Your task to perform on an android device: Check the weather Image 0: 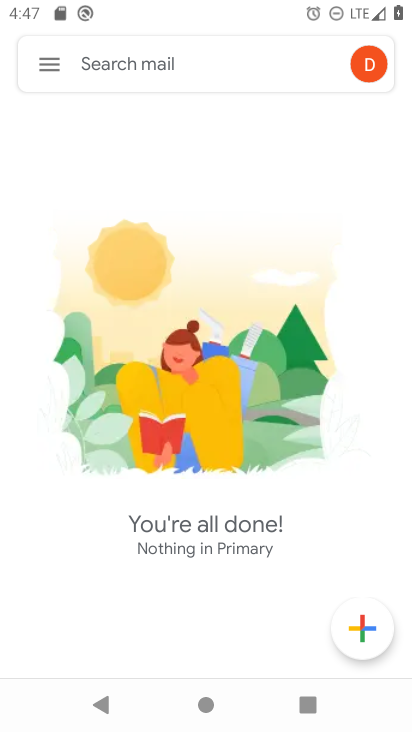
Step 0: press home button
Your task to perform on an android device: Check the weather Image 1: 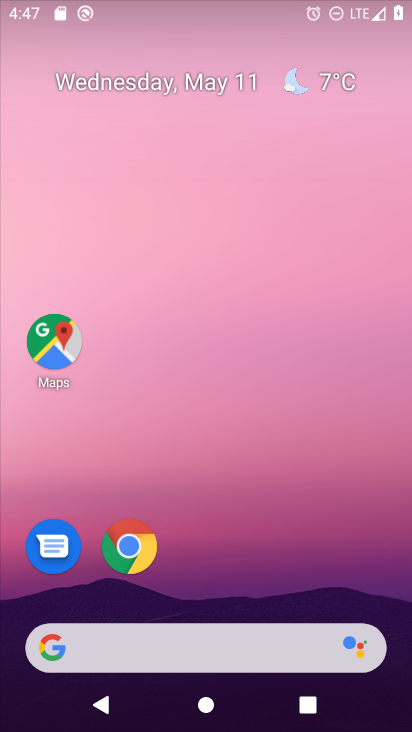
Step 1: drag from (313, 637) to (253, 78)
Your task to perform on an android device: Check the weather Image 2: 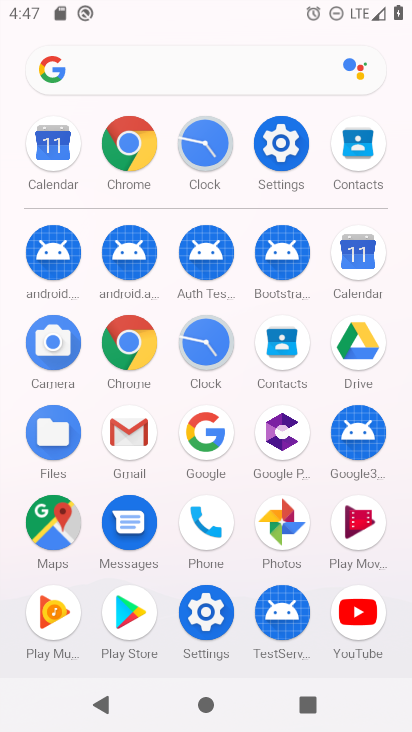
Step 2: click (136, 365)
Your task to perform on an android device: Check the weather Image 3: 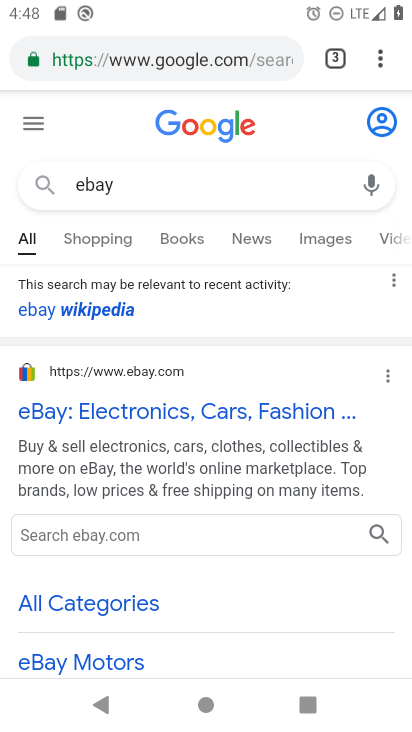
Step 3: click (229, 61)
Your task to perform on an android device: Check the weather Image 4: 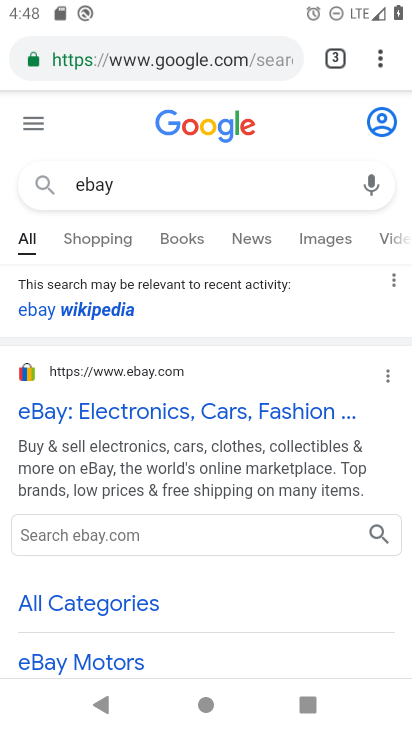
Step 4: click (263, 66)
Your task to perform on an android device: Check the weather Image 5: 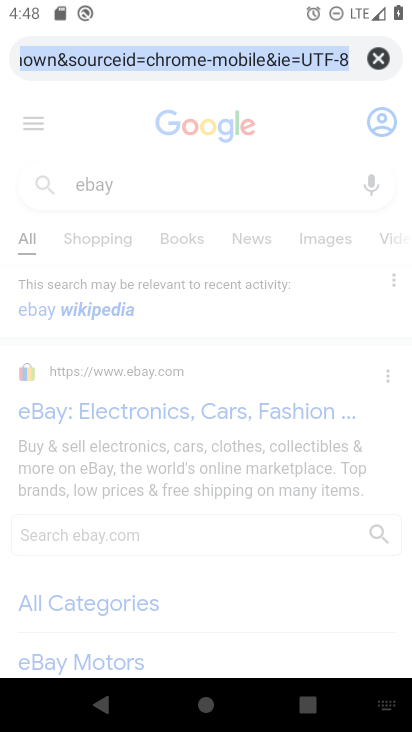
Step 5: click (383, 61)
Your task to perform on an android device: Check the weather Image 6: 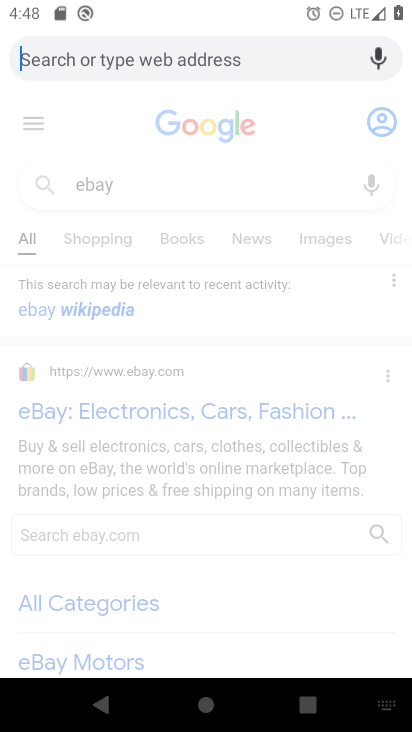
Step 6: type "check the weather"
Your task to perform on an android device: Check the weather Image 7: 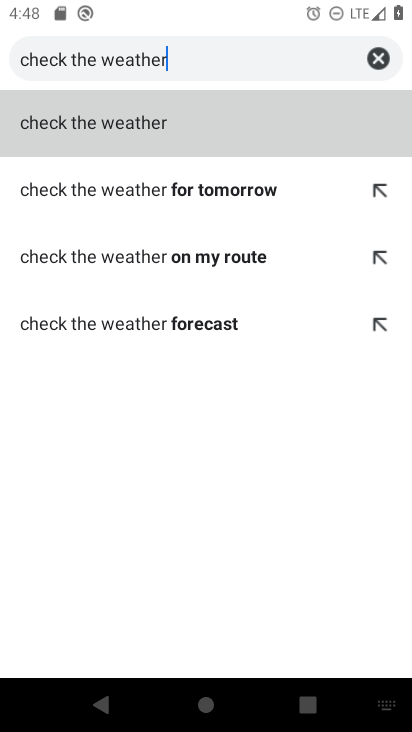
Step 7: click (162, 135)
Your task to perform on an android device: Check the weather Image 8: 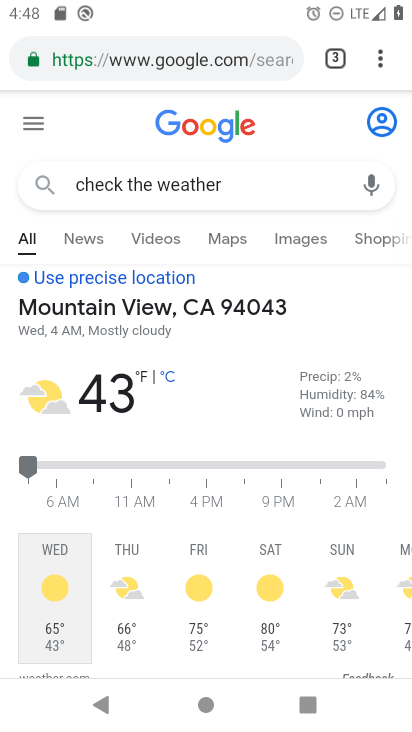
Step 8: task complete